Your task to perform on an android device: turn on bluetooth scan Image 0: 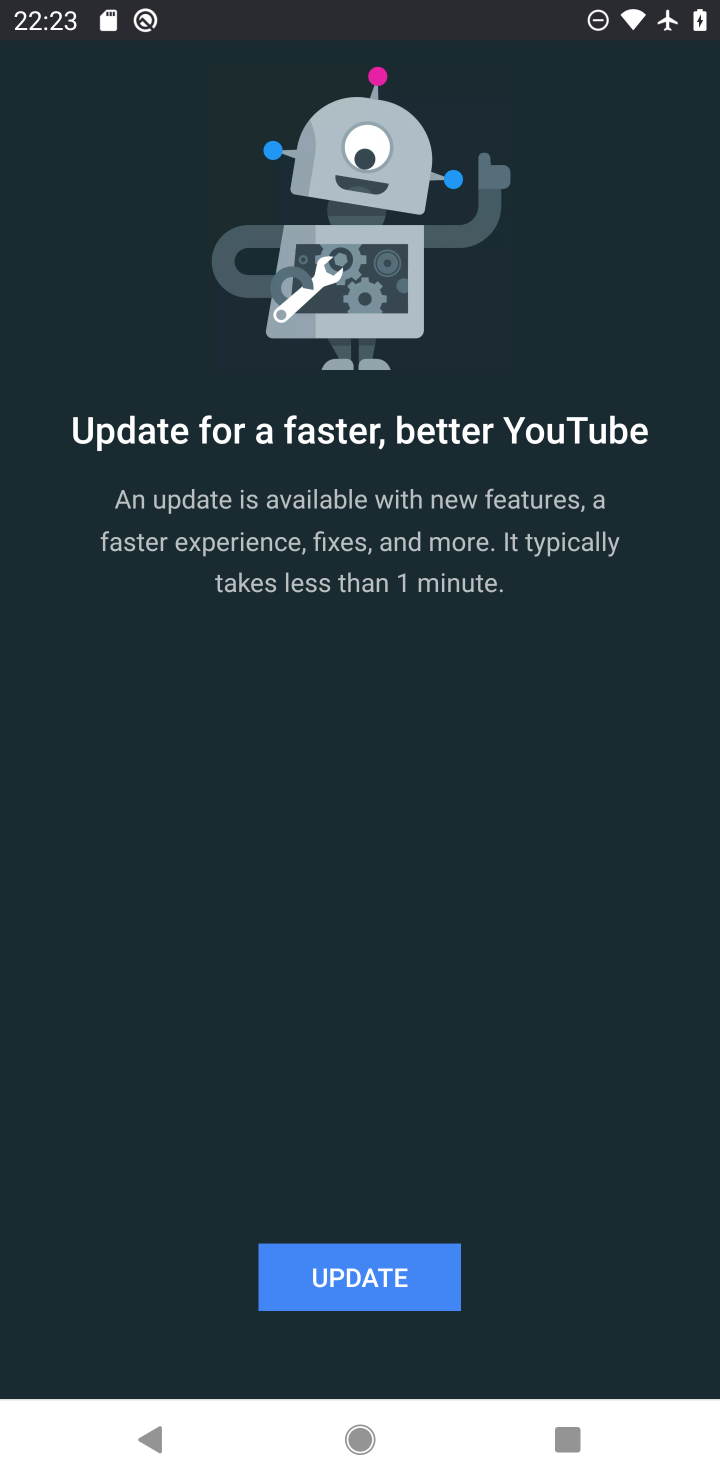
Step 0: press home button
Your task to perform on an android device: turn on bluetooth scan Image 1: 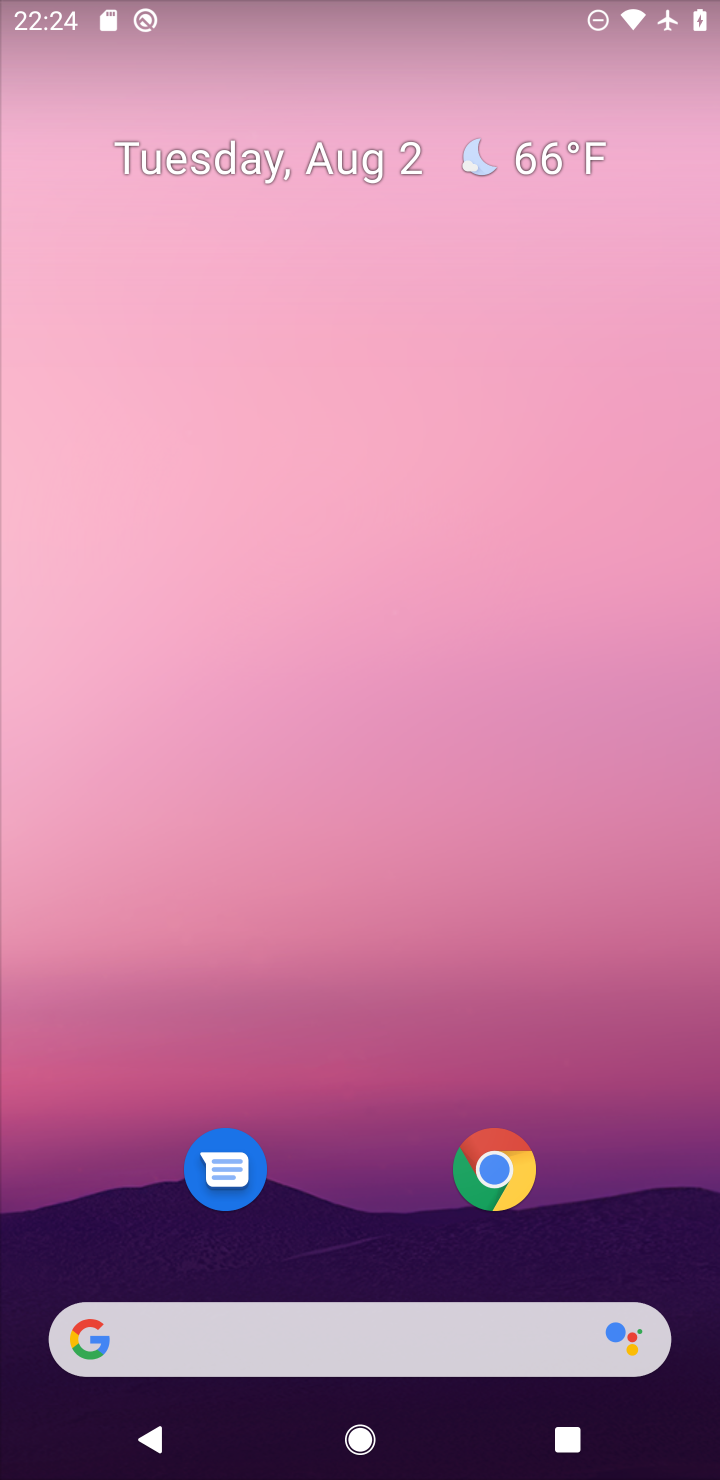
Step 1: drag from (334, 783) to (337, 17)
Your task to perform on an android device: turn on bluetooth scan Image 2: 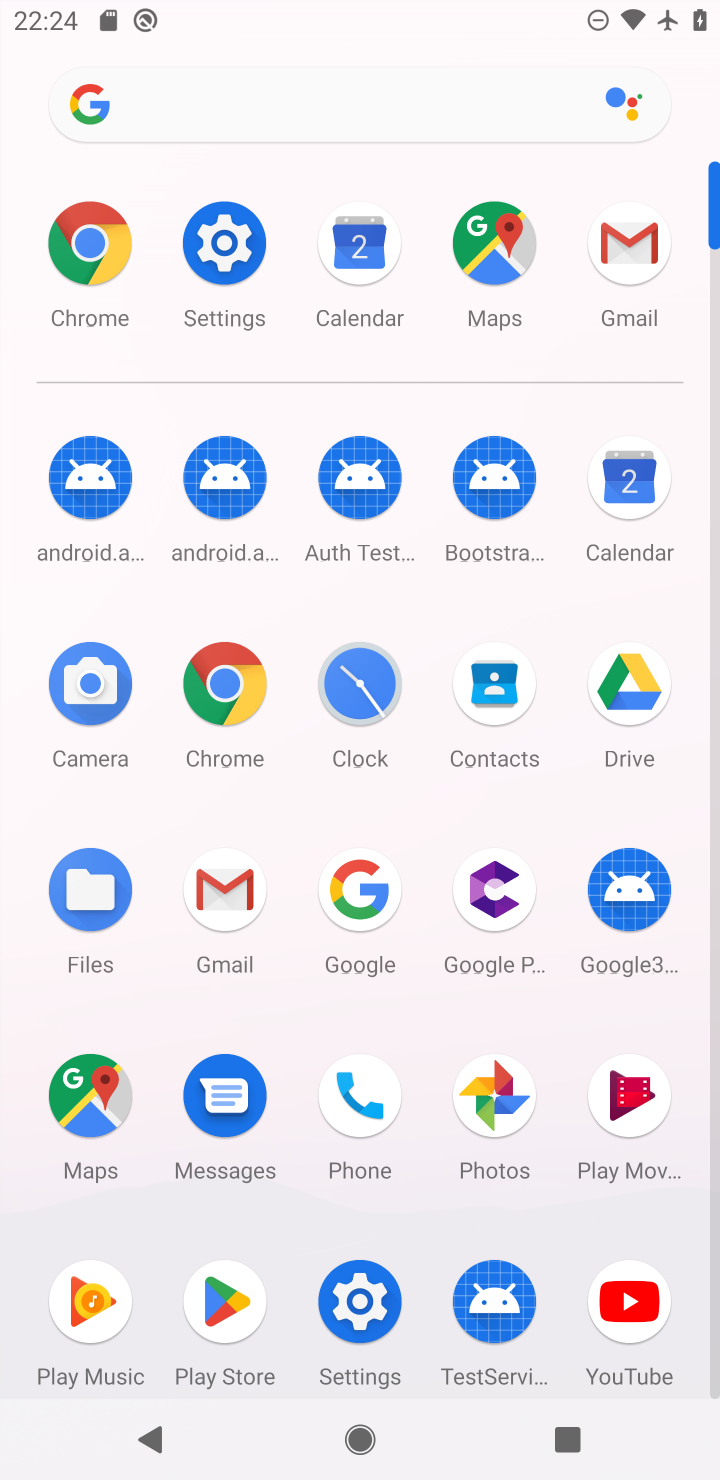
Step 2: click (212, 252)
Your task to perform on an android device: turn on bluetooth scan Image 3: 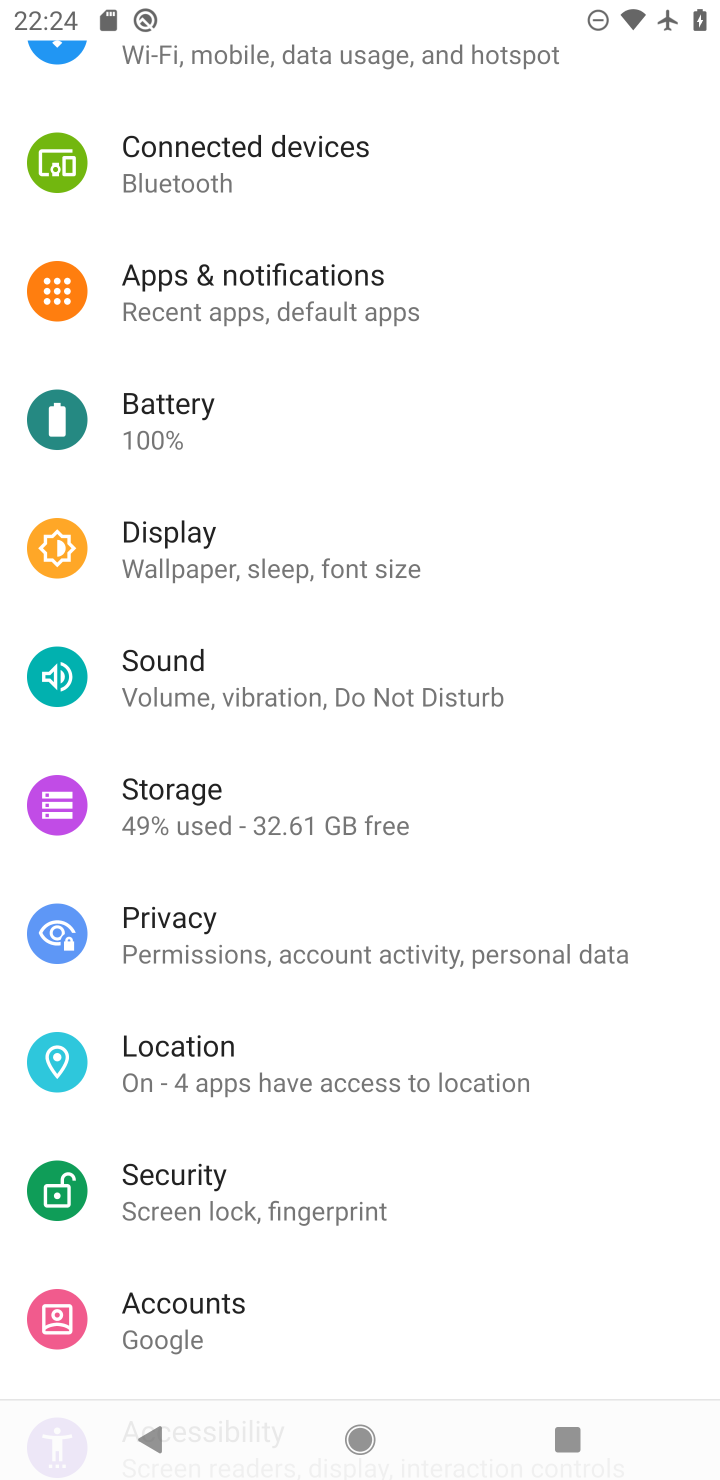
Step 3: click (171, 1072)
Your task to perform on an android device: turn on bluetooth scan Image 4: 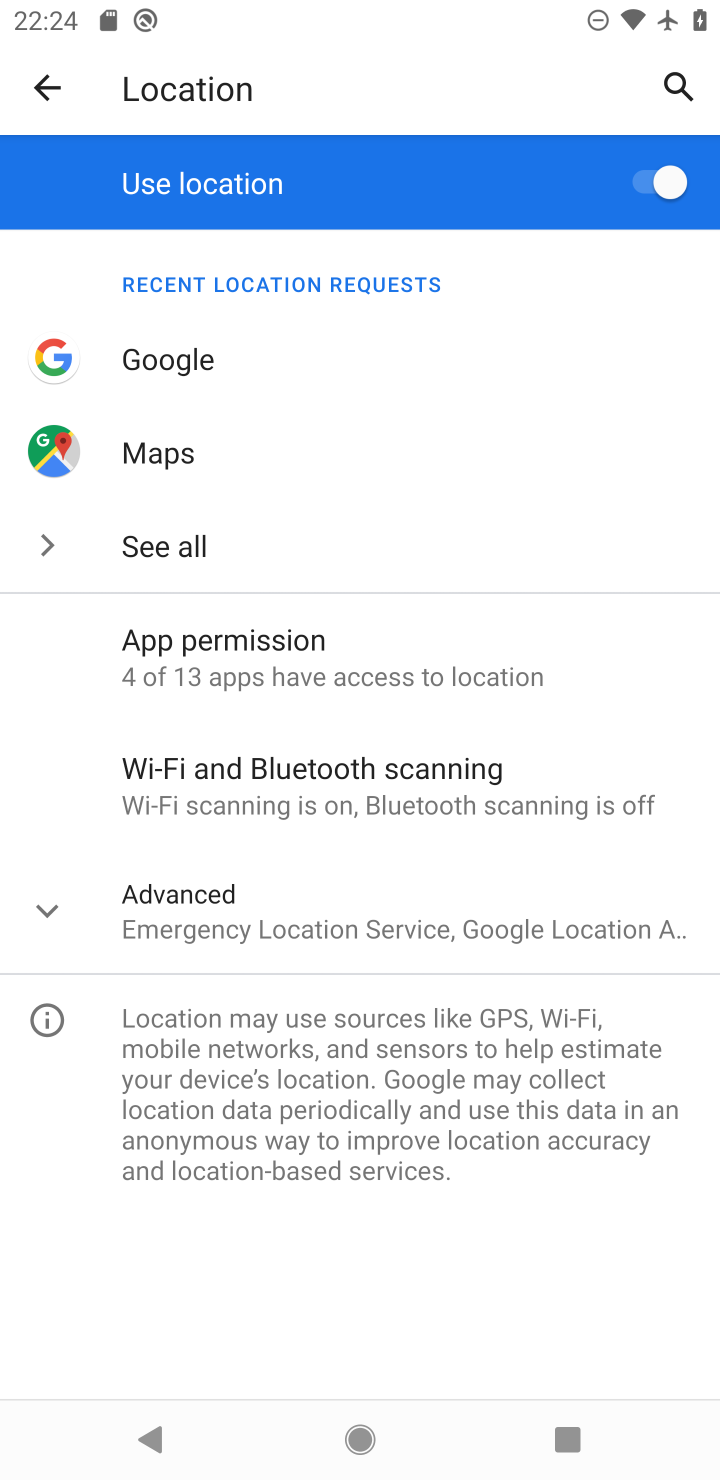
Step 4: click (193, 792)
Your task to perform on an android device: turn on bluetooth scan Image 5: 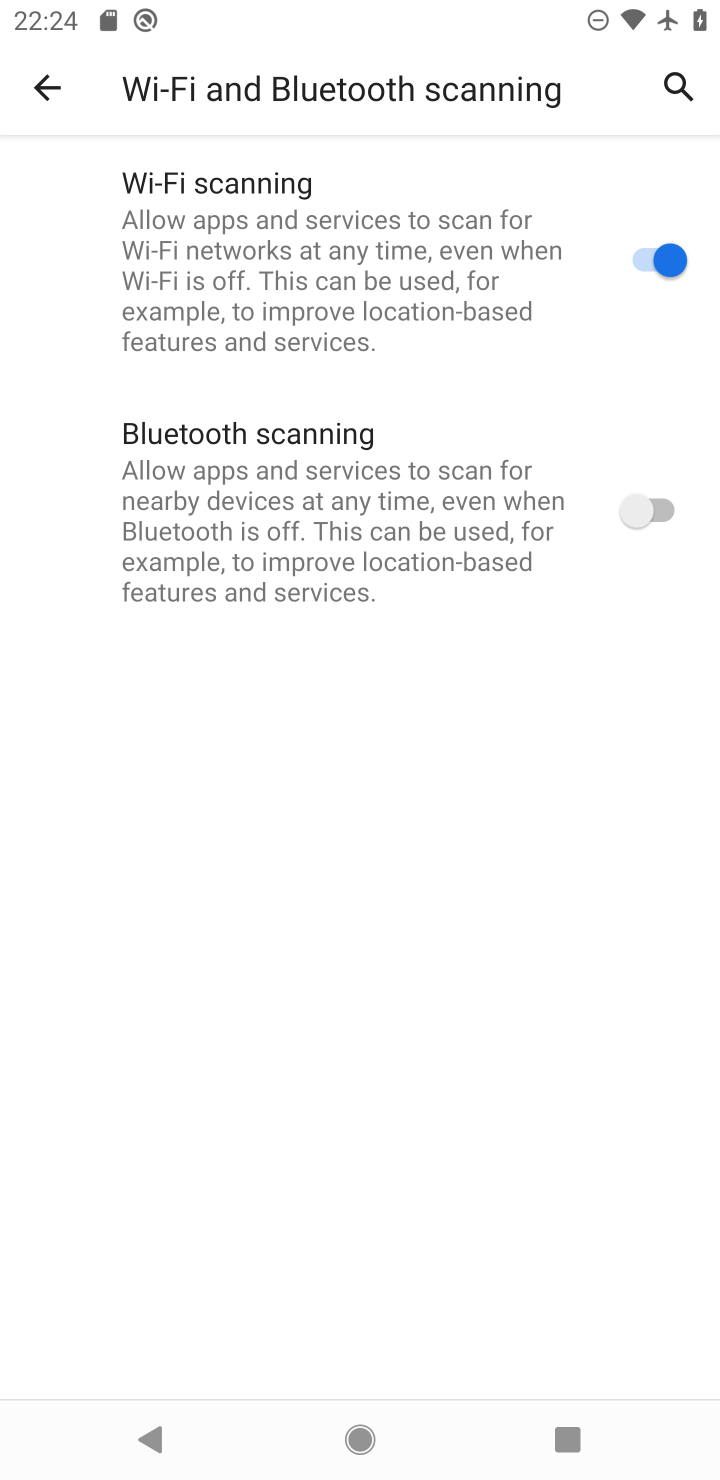
Step 5: click (656, 510)
Your task to perform on an android device: turn on bluetooth scan Image 6: 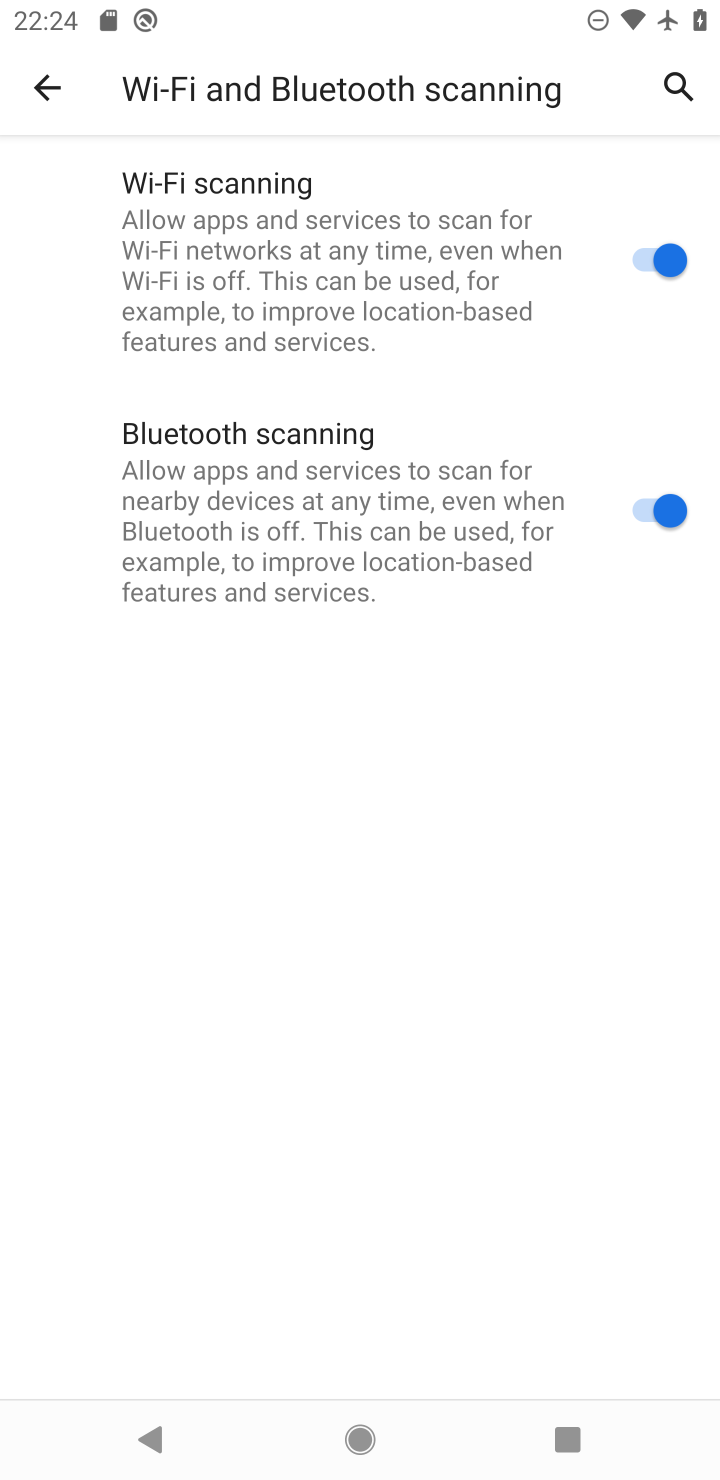
Step 6: task complete